Your task to perform on an android device: turn off location Image 0: 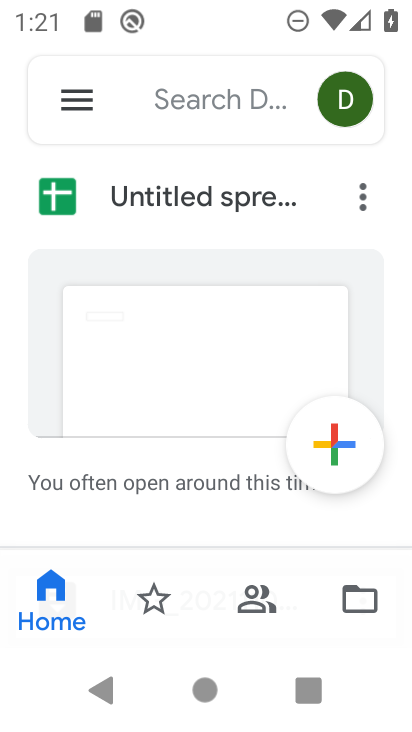
Step 0: press home button
Your task to perform on an android device: turn off location Image 1: 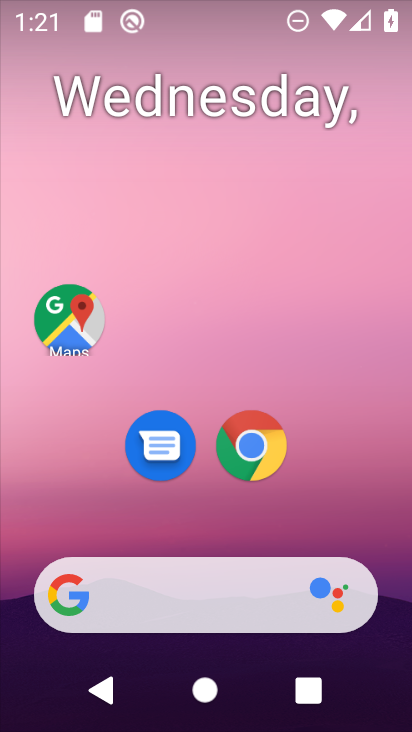
Step 1: drag from (384, 624) to (286, 90)
Your task to perform on an android device: turn off location Image 2: 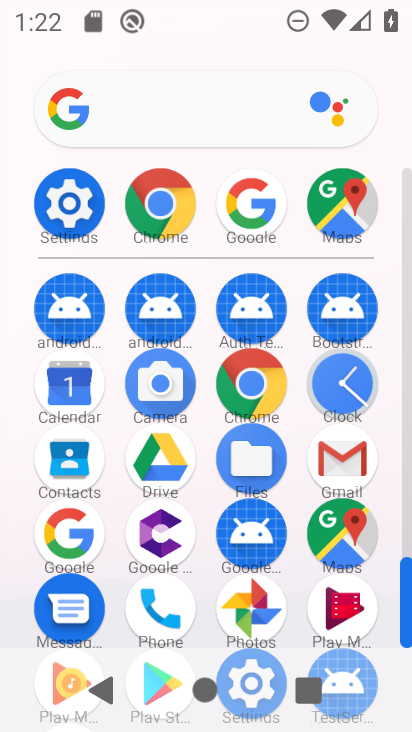
Step 2: click (49, 211)
Your task to perform on an android device: turn off location Image 3: 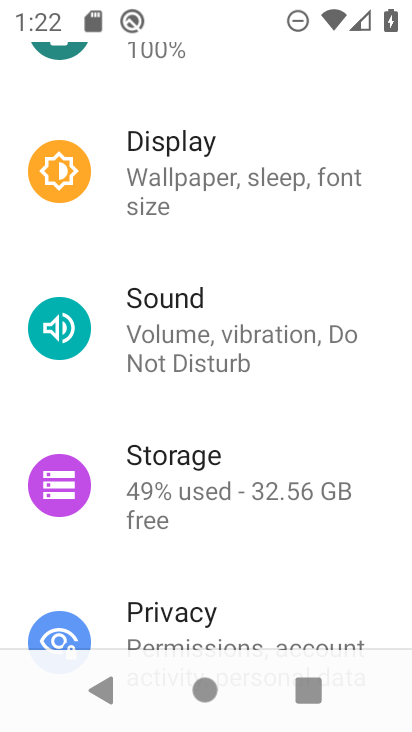
Step 3: drag from (241, 159) to (282, 496)
Your task to perform on an android device: turn off location Image 4: 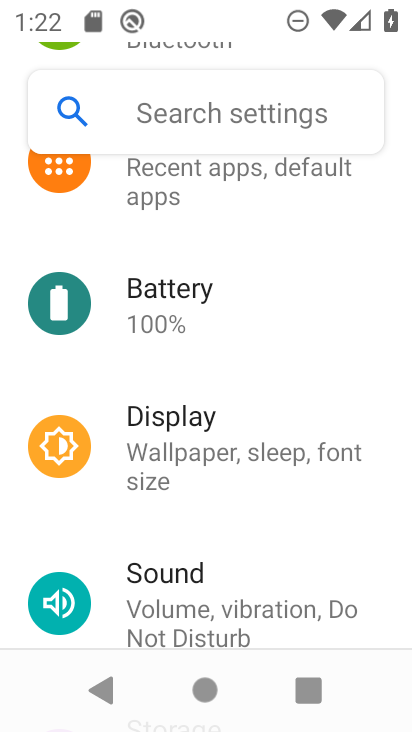
Step 4: drag from (233, 567) to (276, 17)
Your task to perform on an android device: turn off location Image 5: 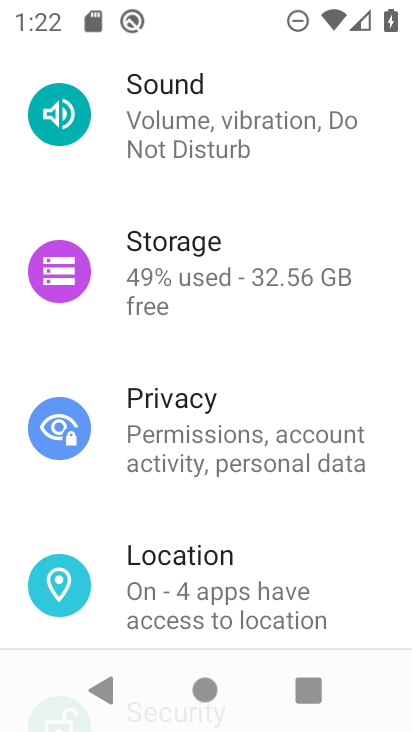
Step 5: click (188, 590)
Your task to perform on an android device: turn off location Image 6: 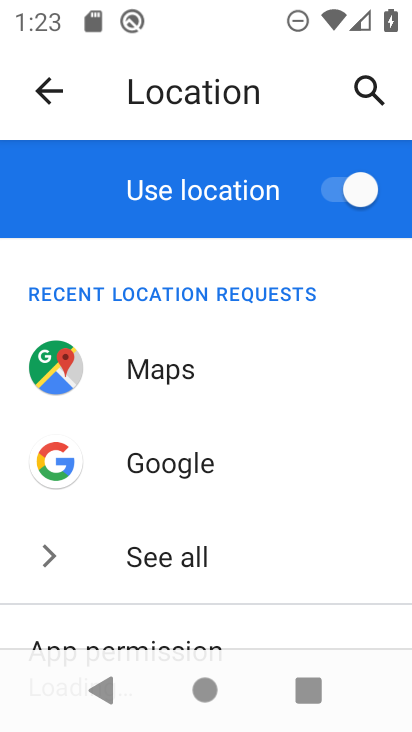
Step 6: click (321, 205)
Your task to perform on an android device: turn off location Image 7: 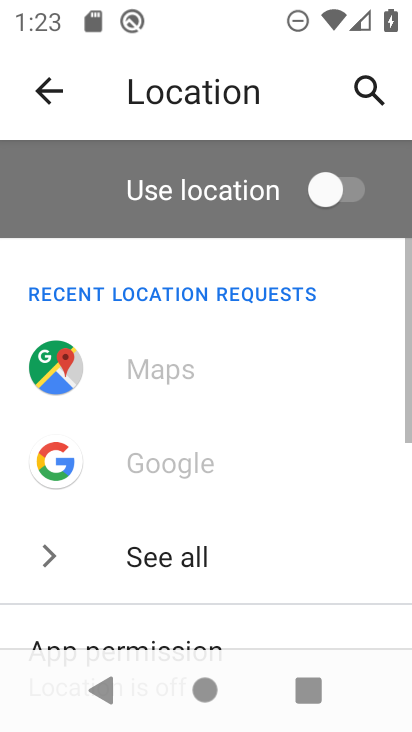
Step 7: task complete